Your task to perform on an android device: see creations saved in the google photos Image 0: 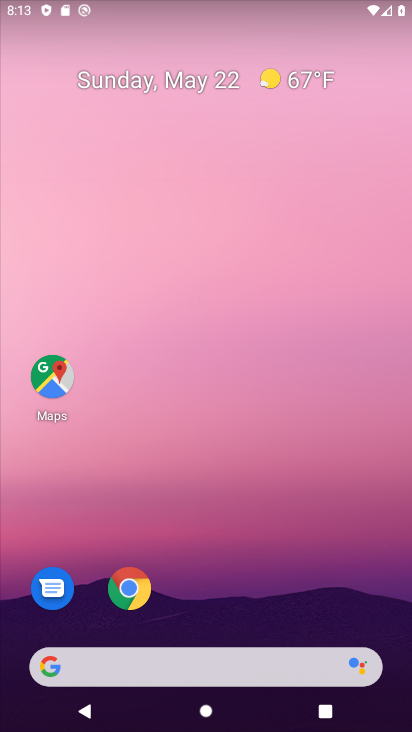
Step 0: drag from (220, 610) to (220, 169)
Your task to perform on an android device: see creations saved in the google photos Image 1: 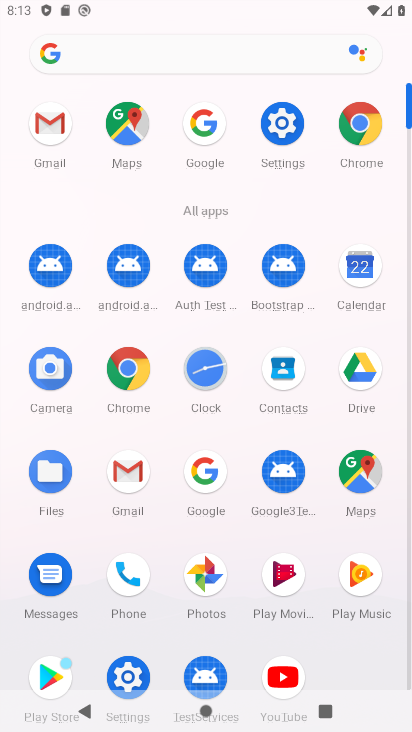
Step 1: click (195, 578)
Your task to perform on an android device: see creations saved in the google photos Image 2: 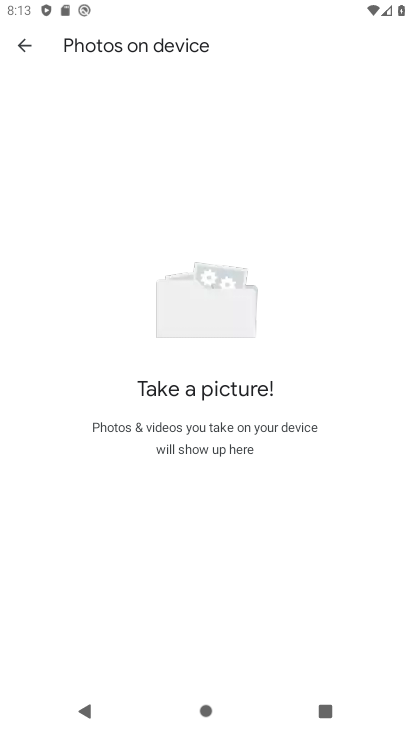
Step 2: click (23, 51)
Your task to perform on an android device: see creations saved in the google photos Image 3: 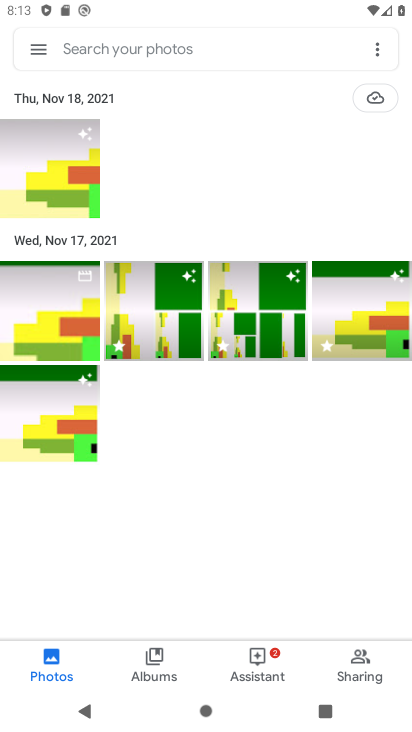
Step 3: click (106, 56)
Your task to perform on an android device: see creations saved in the google photos Image 4: 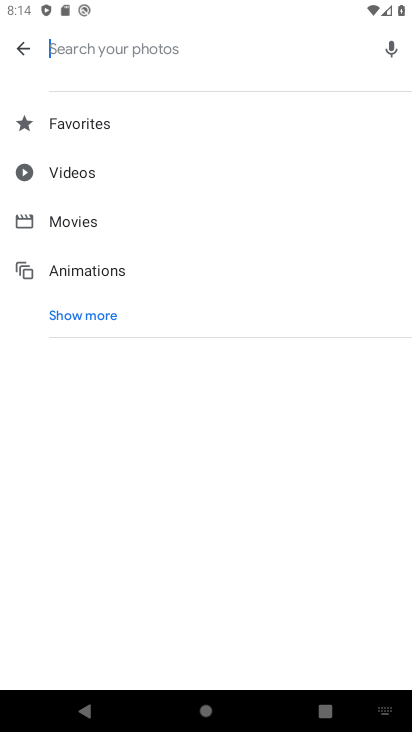
Step 4: click (83, 310)
Your task to perform on an android device: see creations saved in the google photos Image 5: 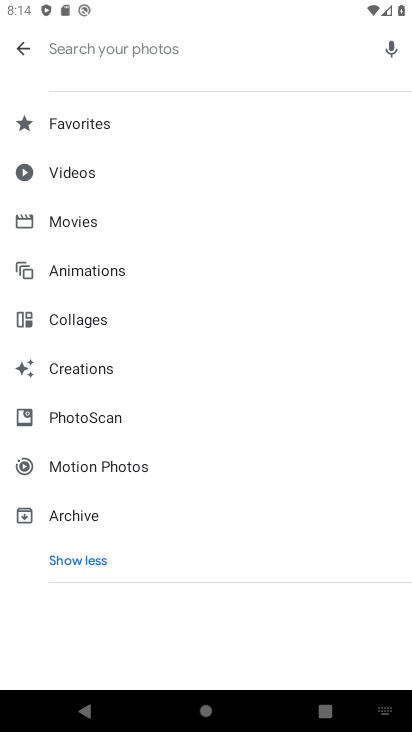
Step 5: click (79, 364)
Your task to perform on an android device: see creations saved in the google photos Image 6: 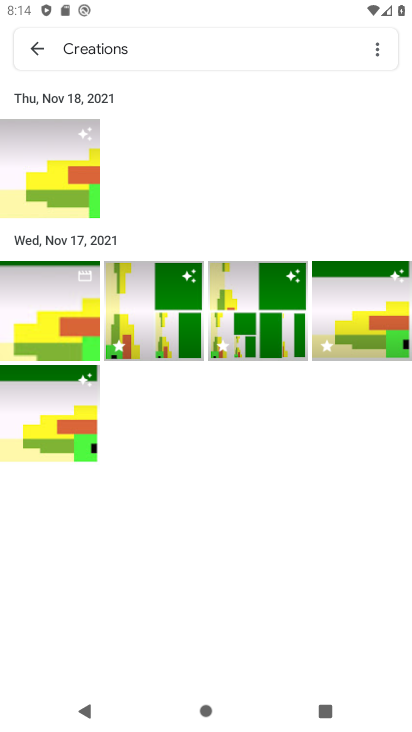
Step 6: task complete